Your task to perform on an android device: install app "Instagram" Image 0: 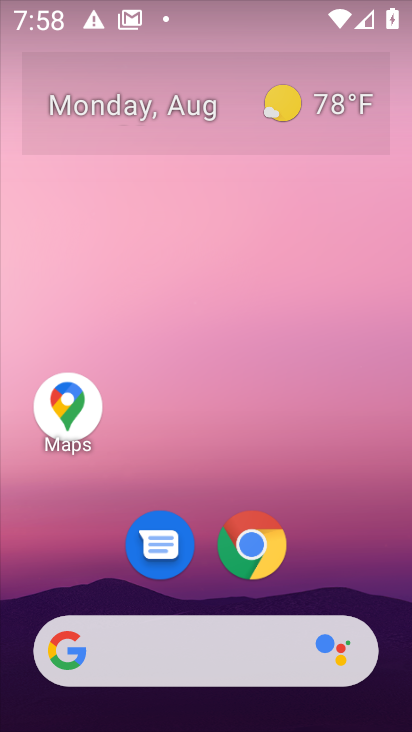
Step 0: press home button
Your task to perform on an android device: install app "Instagram" Image 1: 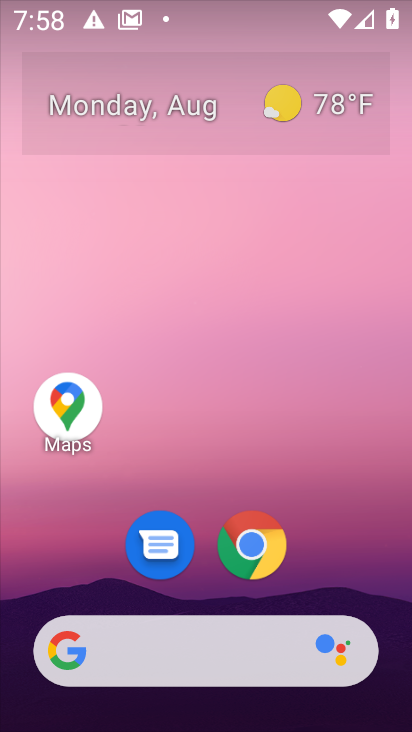
Step 1: drag from (341, 579) to (375, 105)
Your task to perform on an android device: install app "Instagram" Image 2: 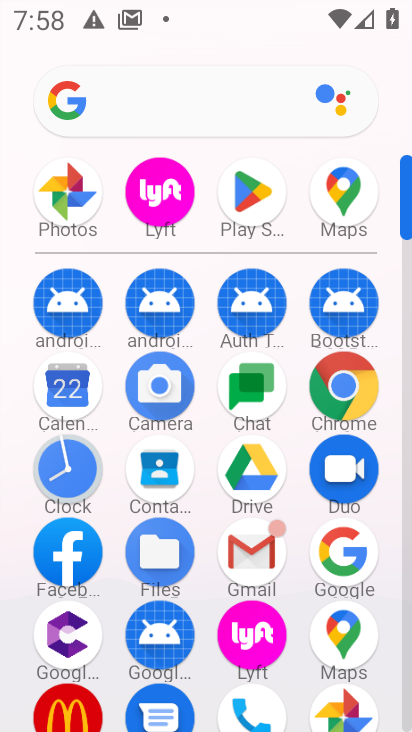
Step 2: click (254, 200)
Your task to perform on an android device: install app "Instagram" Image 3: 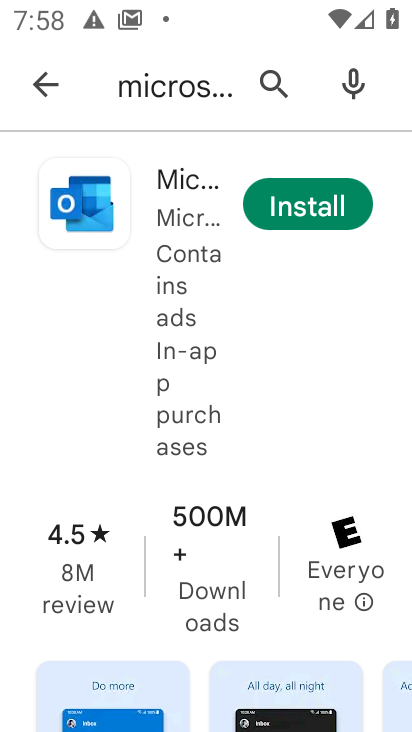
Step 3: press back button
Your task to perform on an android device: install app "Instagram" Image 4: 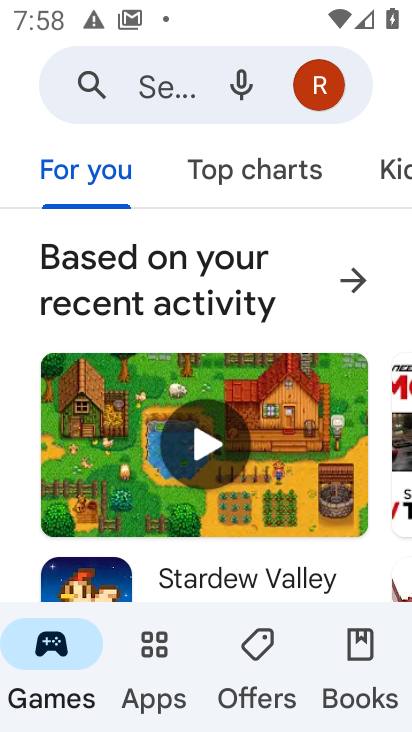
Step 4: click (157, 87)
Your task to perform on an android device: install app "Instagram" Image 5: 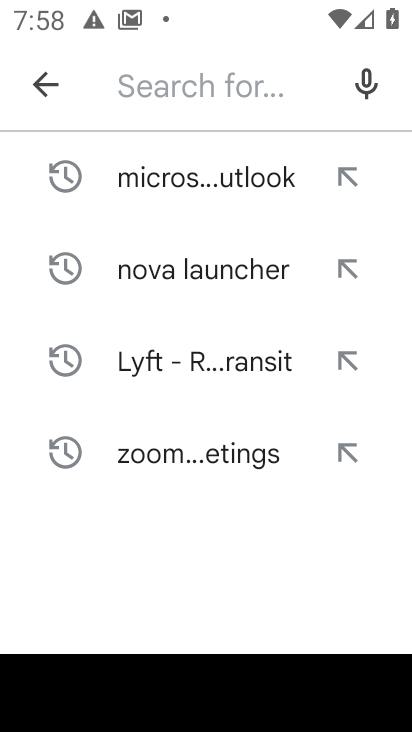
Step 5: type "instagram"
Your task to perform on an android device: install app "Instagram" Image 6: 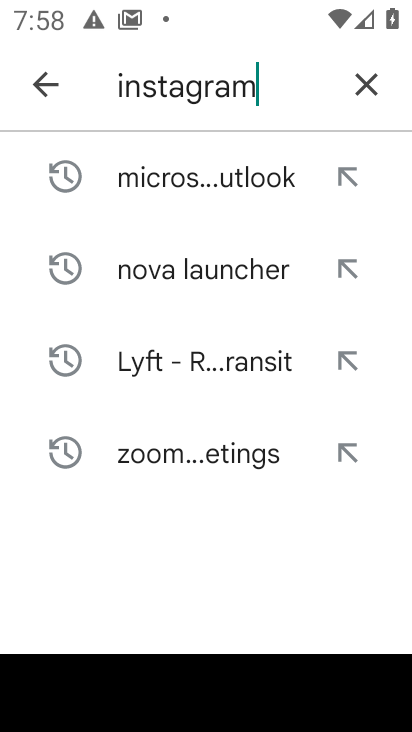
Step 6: press enter
Your task to perform on an android device: install app "Instagram" Image 7: 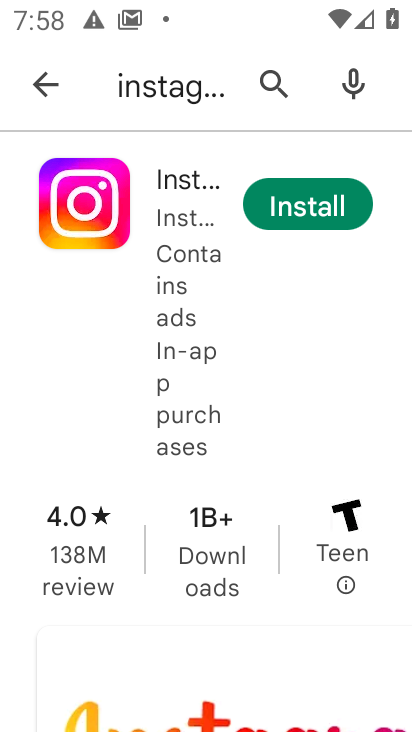
Step 7: click (309, 209)
Your task to perform on an android device: install app "Instagram" Image 8: 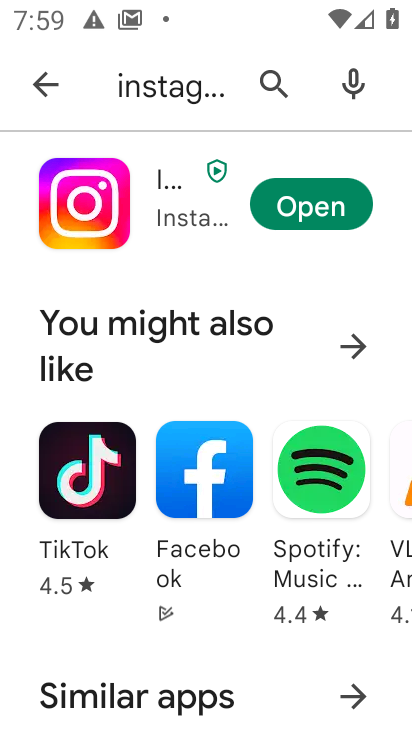
Step 8: task complete